Your task to perform on an android device: What is the recent news? Image 0: 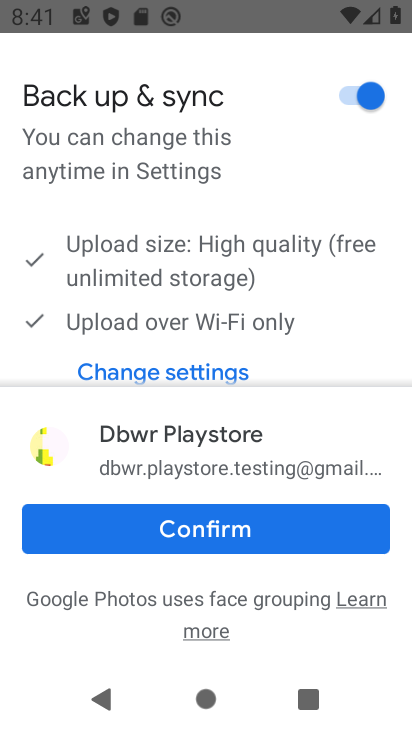
Step 0: press home button
Your task to perform on an android device: What is the recent news? Image 1: 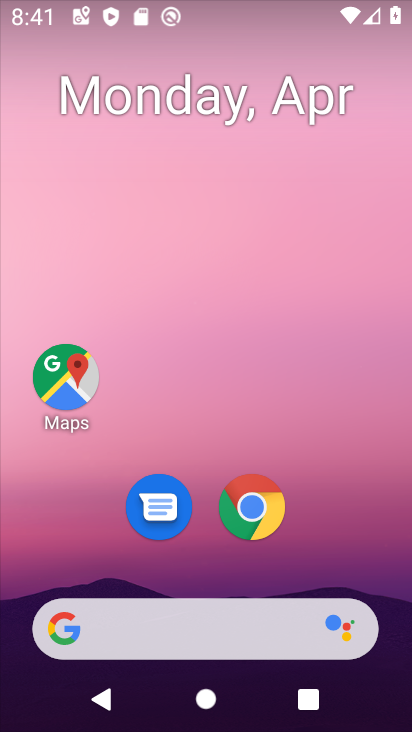
Step 1: task complete